Your task to perform on an android device: Search for Italian restaurants on Maps Image 0: 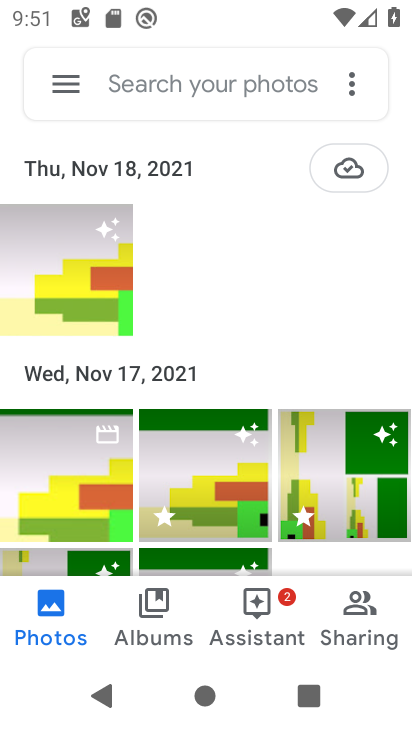
Step 0: press home button
Your task to perform on an android device: Search for Italian restaurants on Maps Image 1: 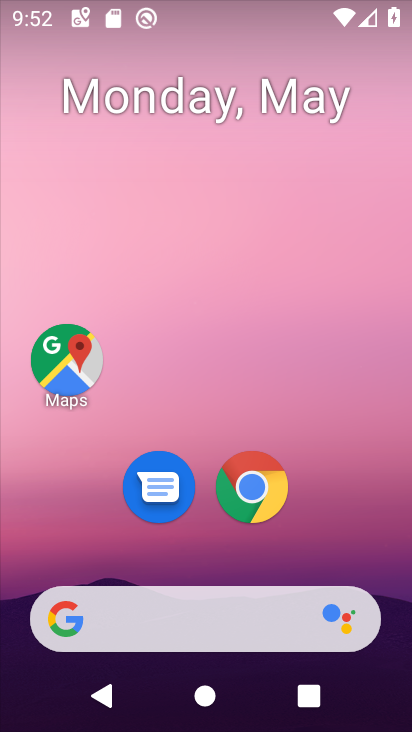
Step 1: click (62, 356)
Your task to perform on an android device: Search for Italian restaurants on Maps Image 2: 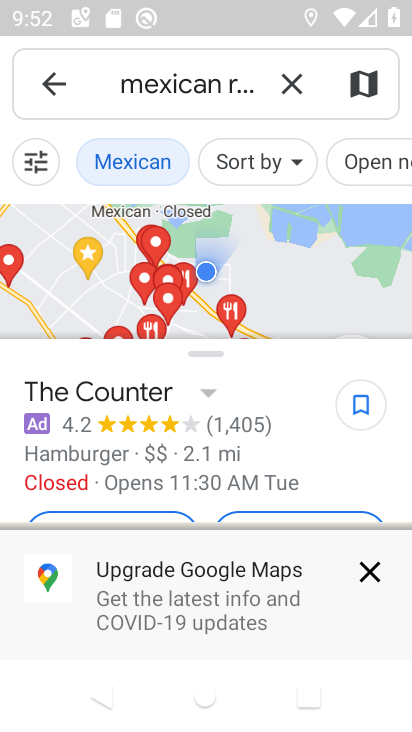
Step 2: click (291, 92)
Your task to perform on an android device: Search for Italian restaurants on Maps Image 3: 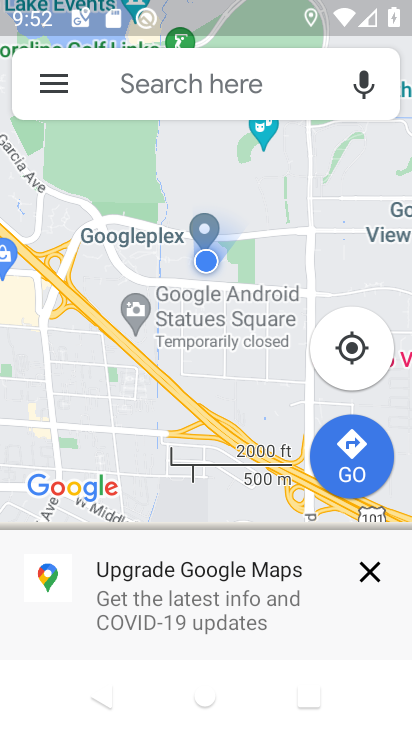
Step 3: click (223, 73)
Your task to perform on an android device: Search for Italian restaurants on Maps Image 4: 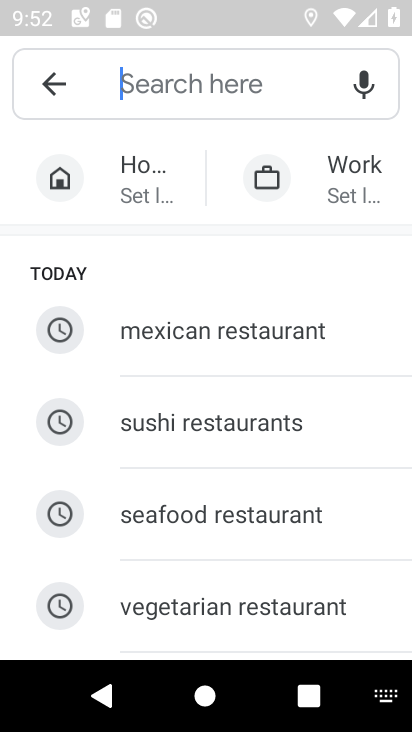
Step 4: type "italian restaurant"
Your task to perform on an android device: Search for Italian restaurants on Maps Image 5: 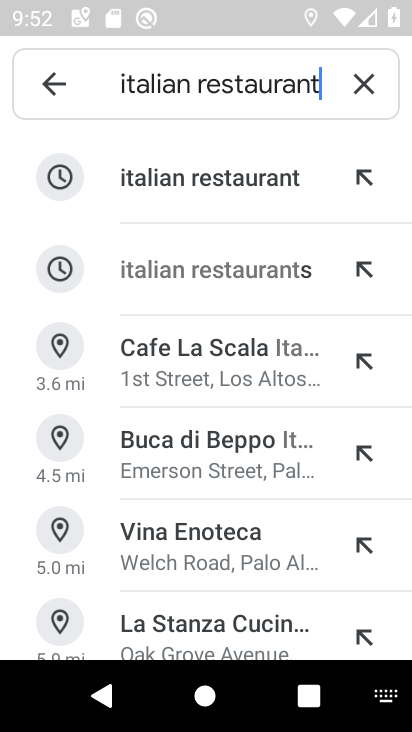
Step 5: click (244, 188)
Your task to perform on an android device: Search for Italian restaurants on Maps Image 6: 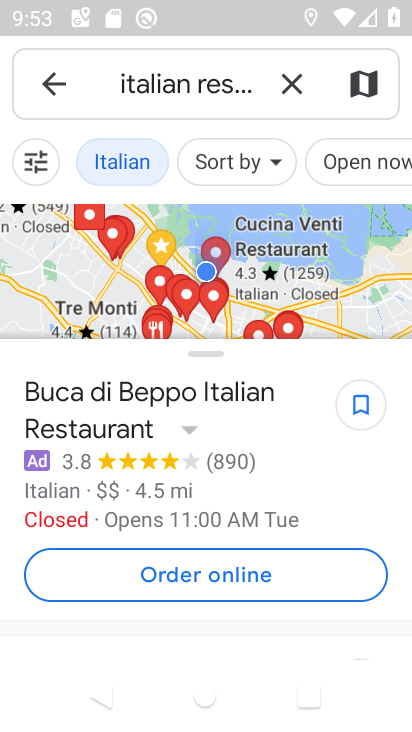
Step 6: task complete